Your task to perform on an android device: turn on priority inbox in the gmail app Image 0: 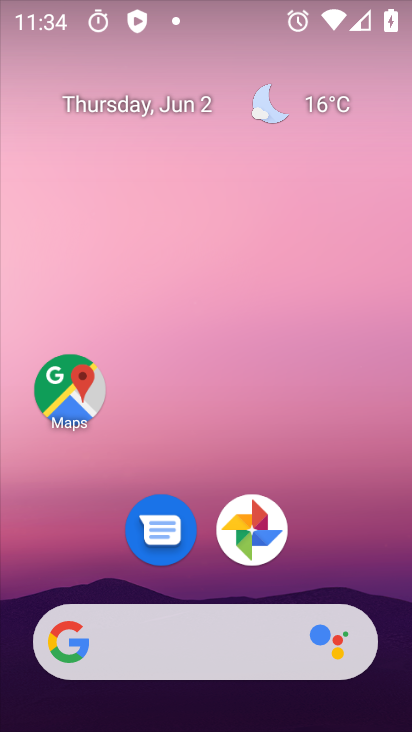
Step 0: drag from (223, 663) to (233, 164)
Your task to perform on an android device: turn on priority inbox in the gmail app Image 1: 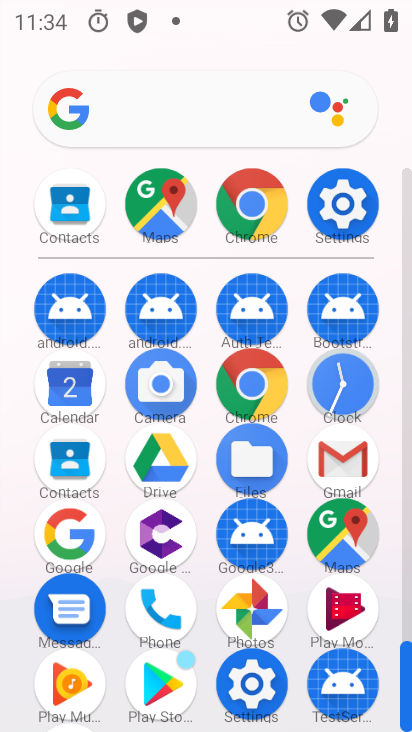
Step 1: click (340, 466)
Your task to perform on an android device: turn on priority inbox in the gmail app Image 2: 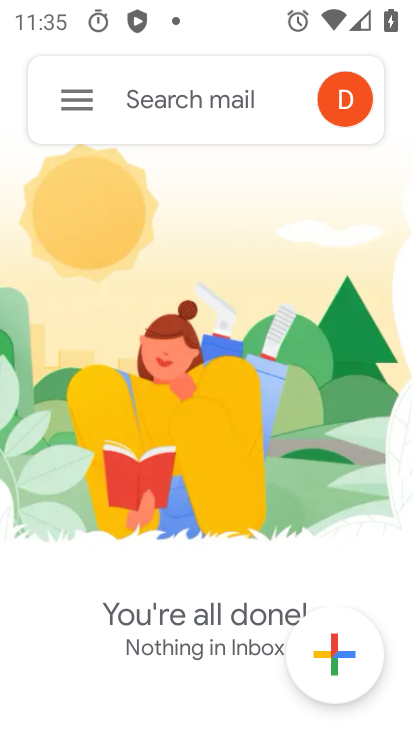
Step 2: click (75, 113)
Your task to perform on an android device: turn on priority inbox in the gmail app Image 3: 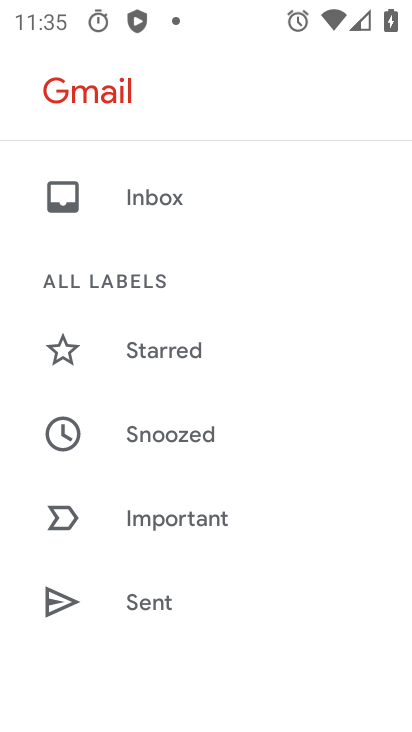
Step 3: drag from (238, 561) to (221, 90)
Your task to perform on an android device: turn on priority inbox in the gmail app Image 4: 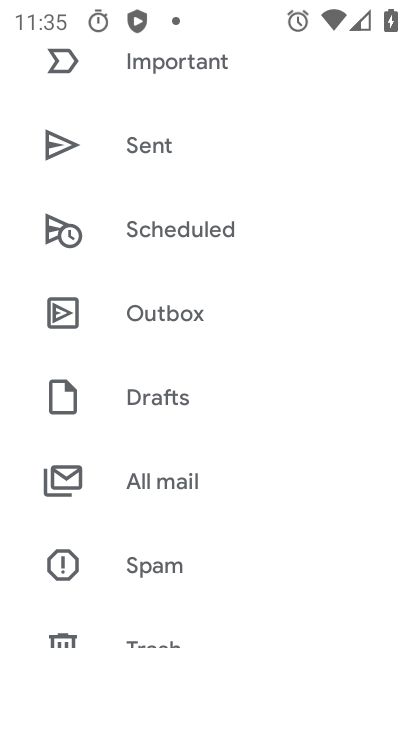
Step 4: drag from (259, 454) to (247, 209)
Your task to perform on an android device: turn on priority inbox in the gmail app Image 5: 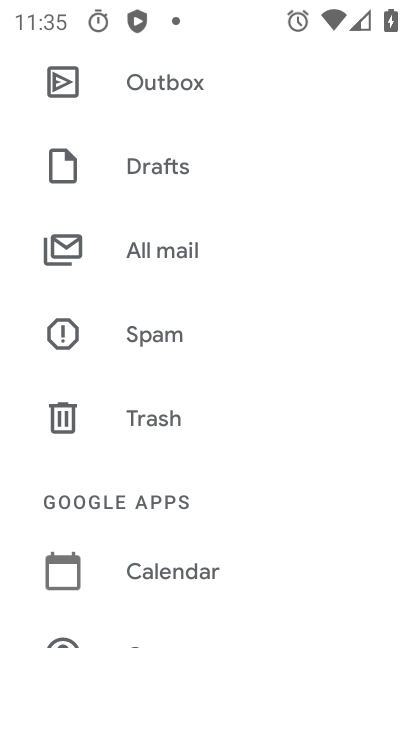
Step 5: drag from (227, 395) to (241, 120)
Your task to perform on an android device: turn on priority inbox in the gmail app Image 6: 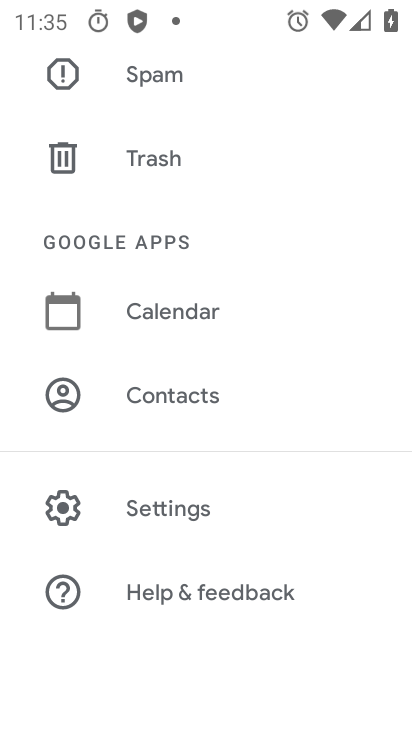
Step 6: click (185, 503)
Your task to perform on an android device: turn on priority inbox in the gmail app Image 7: 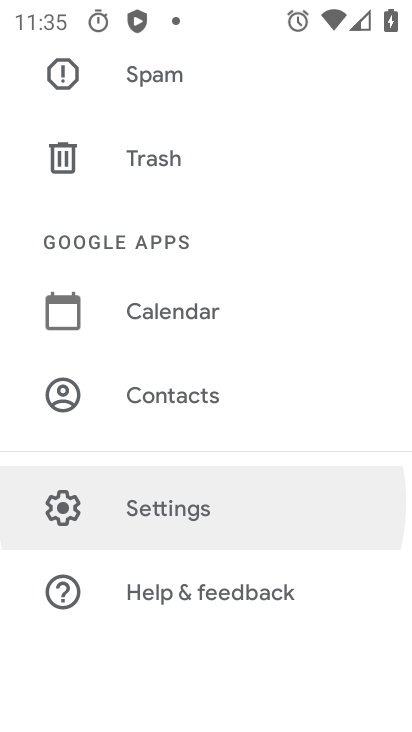
Step 7: click (185, 503)
Your task to perform on an android device: turn on priority inbox in the gmail app Image 8: 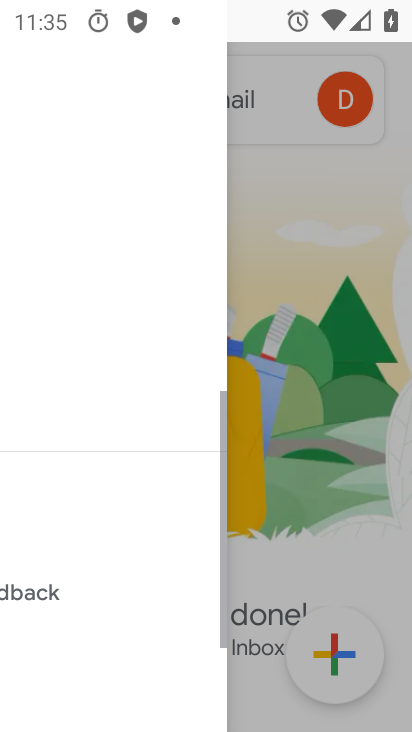
Step 8: click (185, 503)
Your task to perform on an android device: turn on priority inbox in the gmail app Image 9: 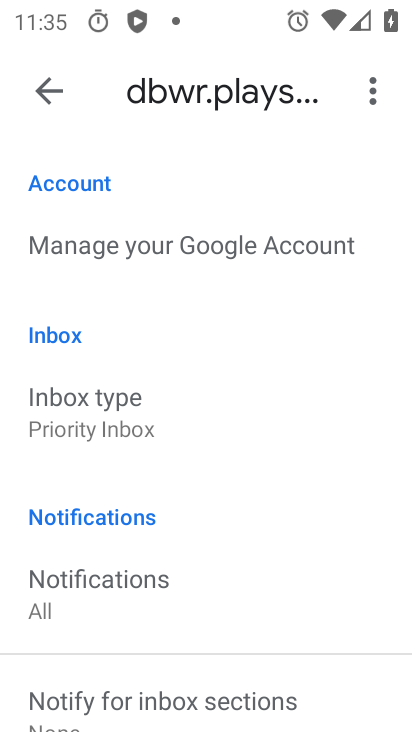
Step 9: drag from (189, 619) to (124, 272)
Your task to perform on an android device: turn on priority inbox in the gmail app Image 10: 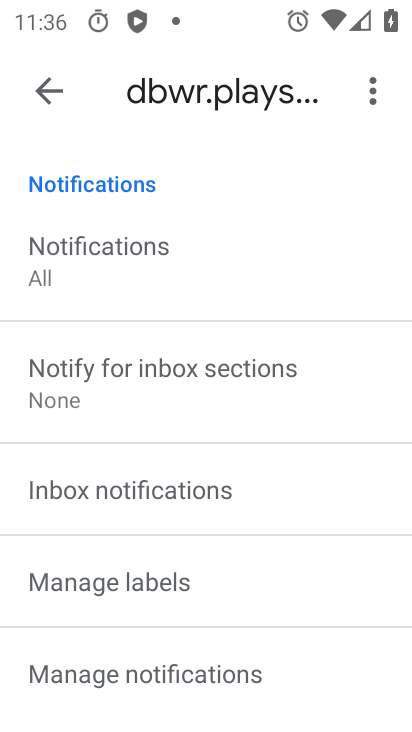
Step 10: drag from (201, 161) to (206, 84)
Your task to perform on an android device: turn on priority inbox in the gmail app Image 11: 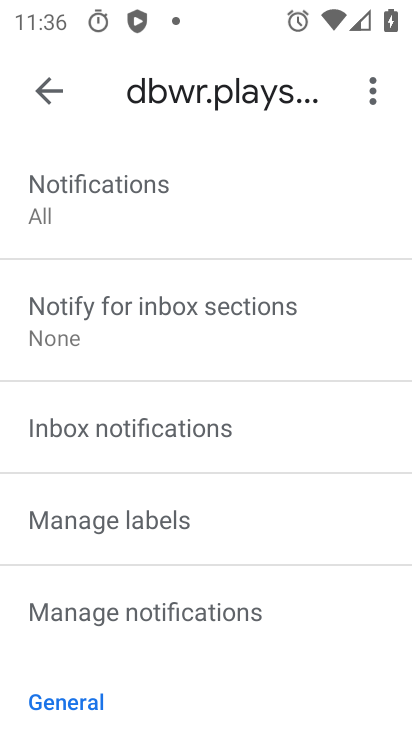
Step 11: drag from (160, 456) to (146, 162)
Your task to perform on an android device: turn on priority inbox in the gmail app Image 12: 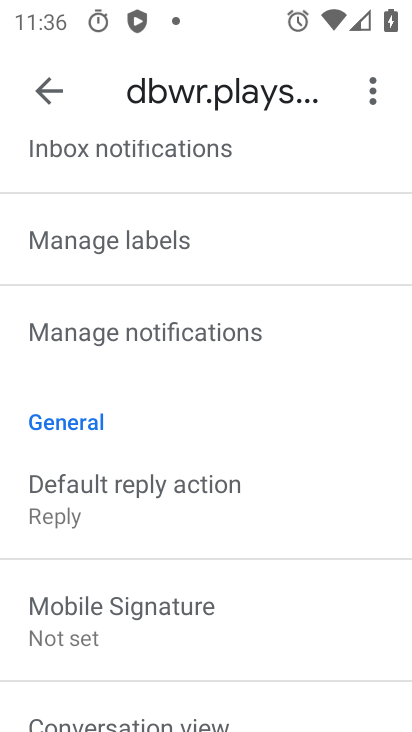
Step 12: drag from (195, 485) to (184, 117)
Your task to perform on an android device: turn on priority inbox in the gmail app Image 13: 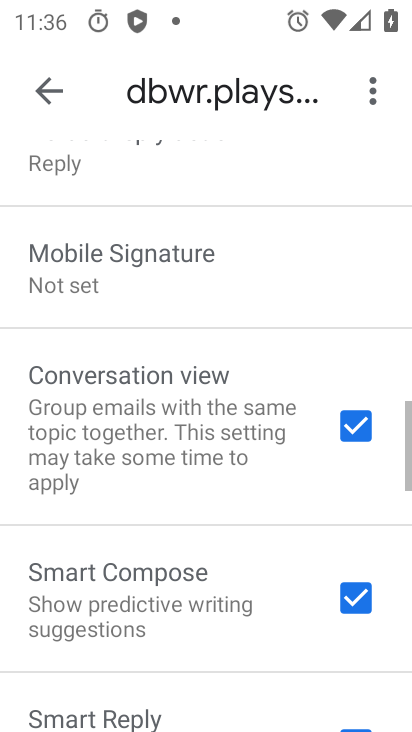
Step 13: drag from (183, 452) to (141, 290)
Your task to perform on an android device: turn on priority inbox in the gmail app Image 14: 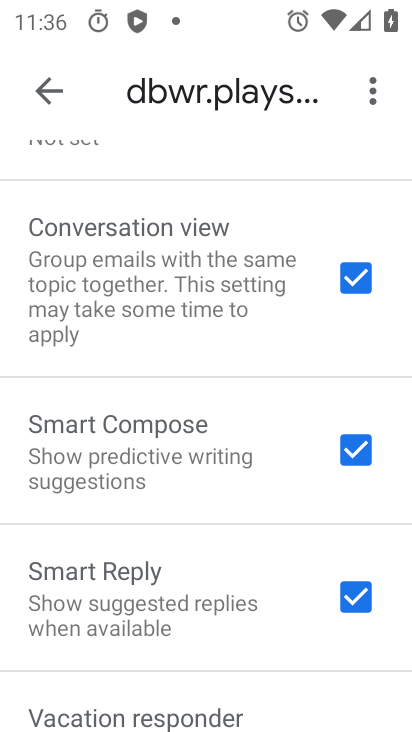
Step 14: drag from (161, 489) to (144, 217)
Your task to perform on an android device: turn on priority inbox in the gmail app Image 15: 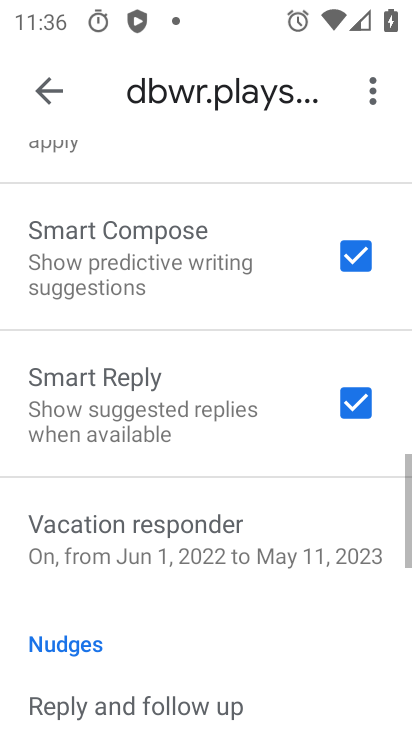
Step 15: drag from (170, 523) to (156, 222)
Your task to perform on an android device: turn on priority inbox in the gmail app Image 16: 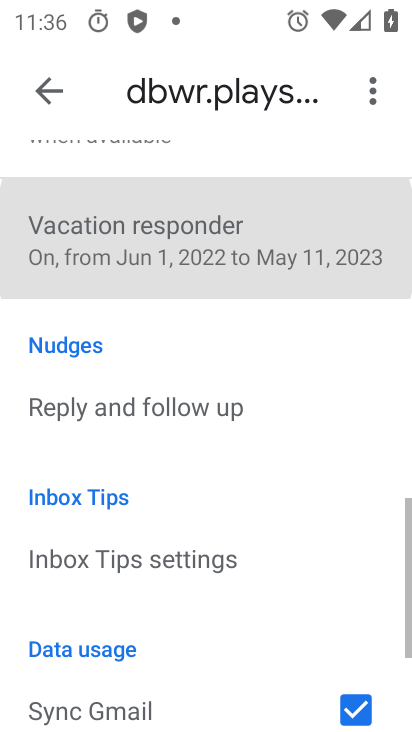
Step 16: drag from (191, 495) to (173, 109)
Your task to perform on an android device: turn on priority inbox in the gmail app Image 17: 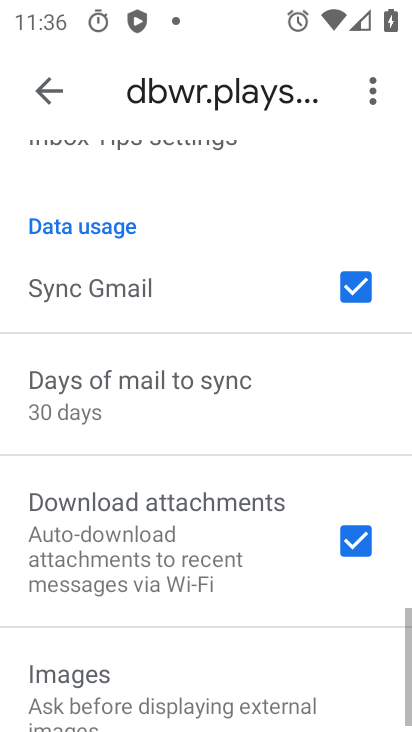
Step 17: drag from (215, 563) to (195, 157)
Your task to perform on an android device: turn on priority inbox in the gmail app Image 18: 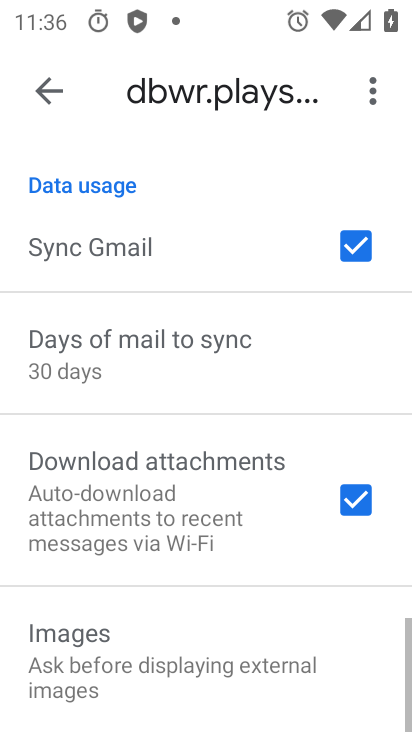
Step 18: drag from (186, 558) to (144, 208)
Your task to perform on an android device: turn on priority inbox in the gmail app Image 19: 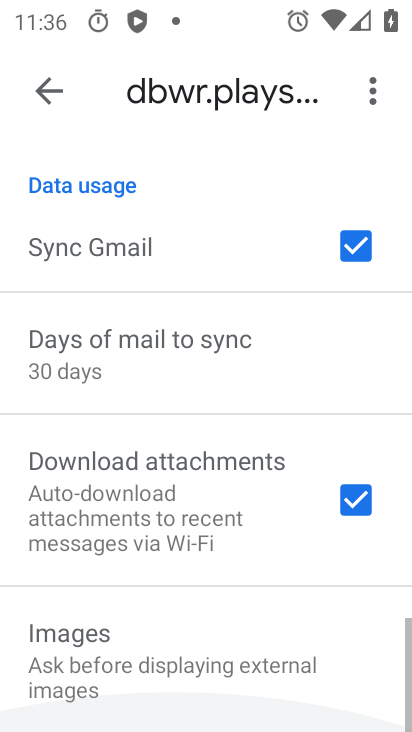
Step 19: drag from (137, 89) to (142, 23)
Your task to perform on an android device: turn on priority inbox in the gmail app Image 20: 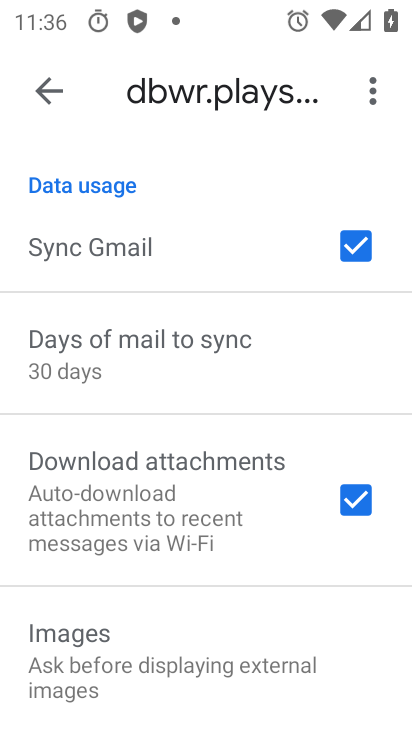
Step 20: drag from (122, 311) to (68, 146)
Your task to perform on an android device: turn on priority inbox in the gmail app Image 21: 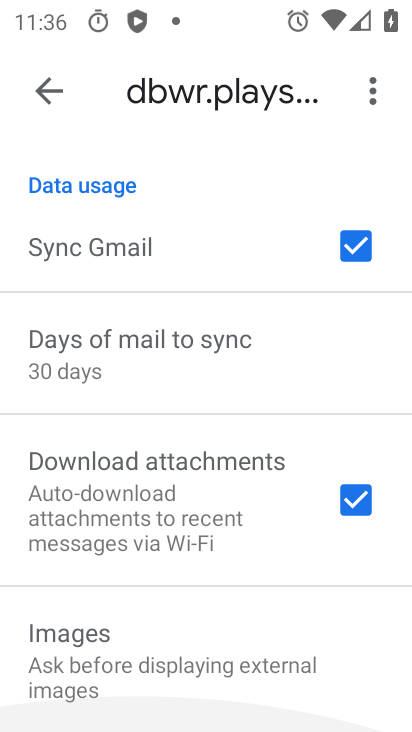
Step 21: drag from (171, 493) to (108, 44)
Your task to perform on an android device: turn on priority inbox in the gmail app Image 22: 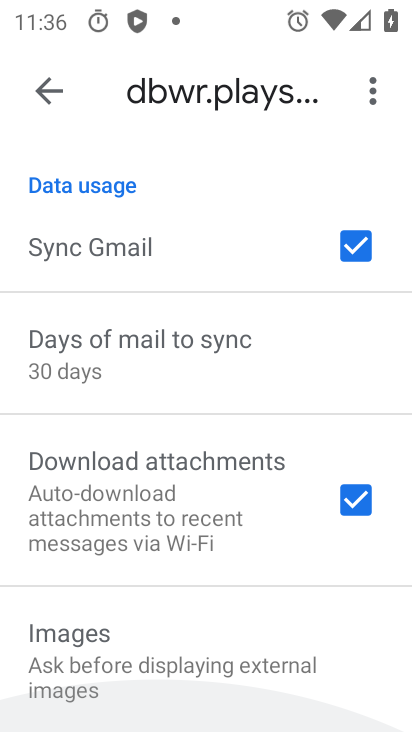
Step 22: drag from (115, 382) to (155, 43)
Your task to perform on an android device: turn on priority inbox in the gmail app Image 23: 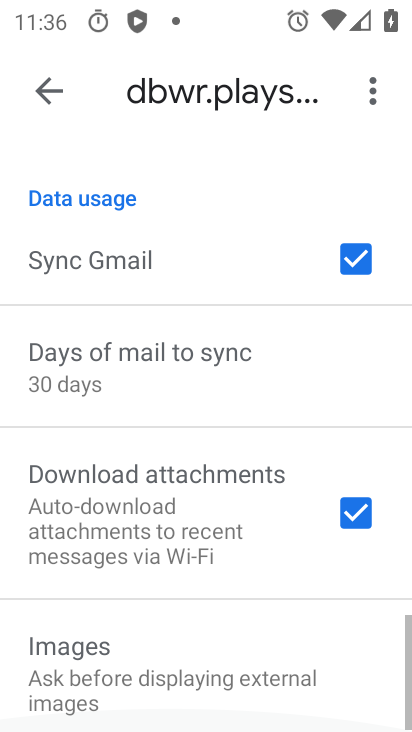
Step 23: drag from (233, 380) to (255, 23)
Your task to perform on an android device: turn on priority inbox in the gmail app Image 24: 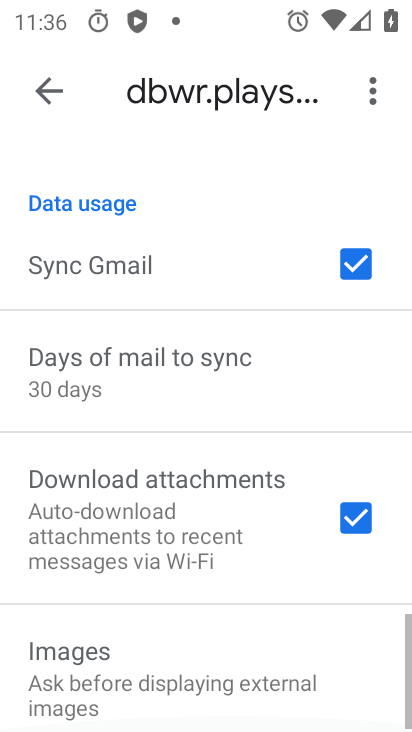
Step 24: drag from (269, 470) to (264, 132)
Your task to perform on an android device: turn on priority inbox in the gmail app Image 25: 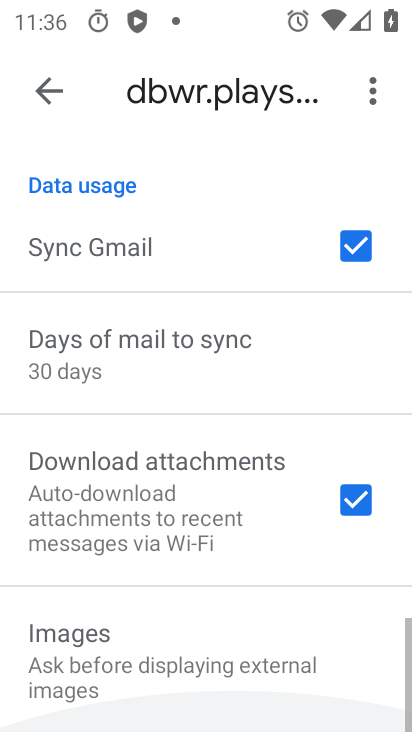
Step 25: drag from (179, 438) to (163, 54)
Your task to perform on an android device: turn on priority inbox in the gmail app Image 26: 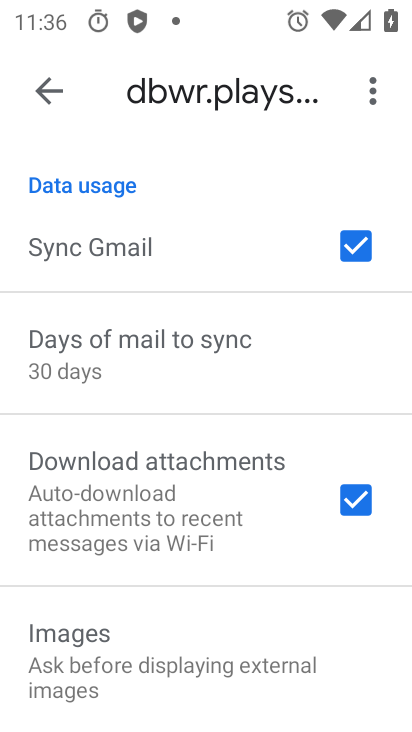
Step 26: drag from (187, 396) to (200, 5)
Your task to perform on an android device: turn on priority inbox in the gmail app Image 27: 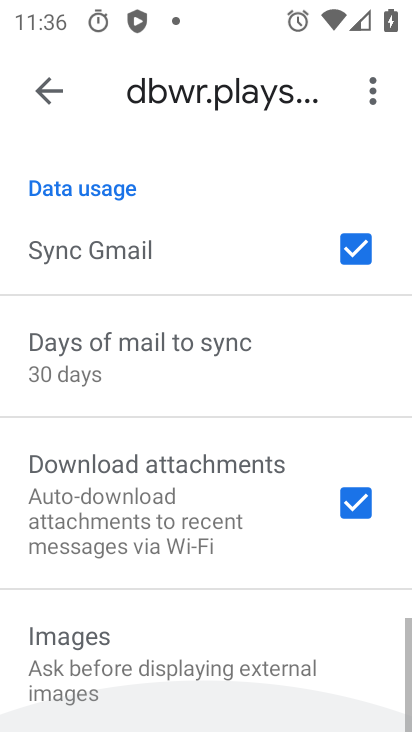
Step 27: drag from (200, 401) to (186, 152)
Your task to perform on an android device: turn on priority inbox in the gmail app Image 28: 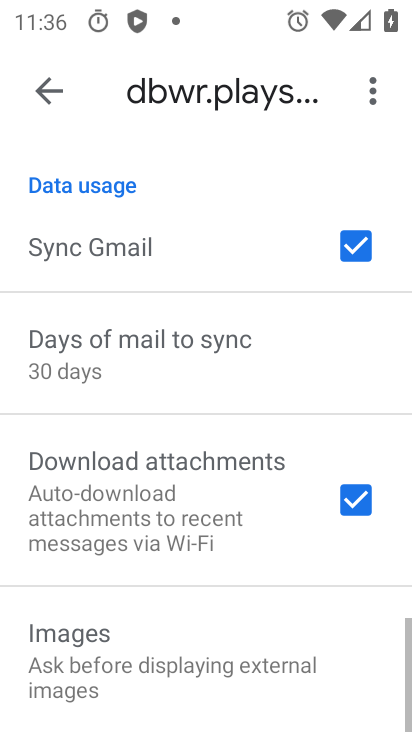
Step 28: drag from (190, 485) to (190, 302)
Your task to perform on an android device: turn on priority inbox in the gmail app Image 29: 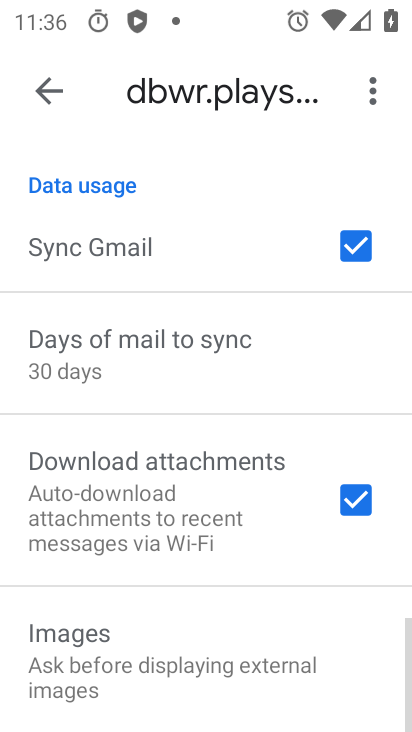
Step 29: click (36, 87)
Your task to perform on an android device: turn on priority inbox in the gmail app Image 30: 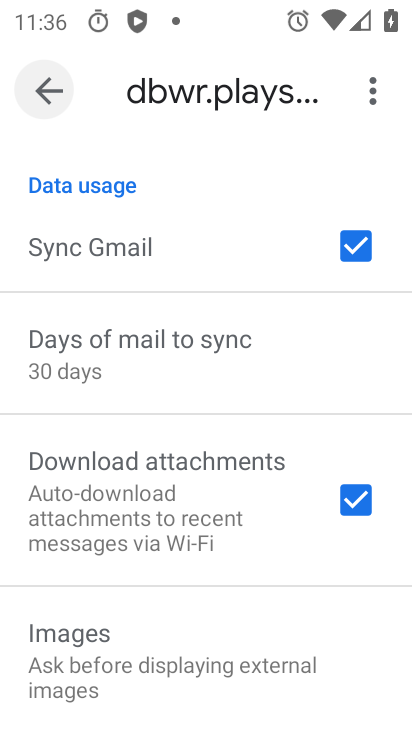
Step 30: click (36, 87)
Your task to perform on an android device: turn on priority inbox in the gmail app Image 31: 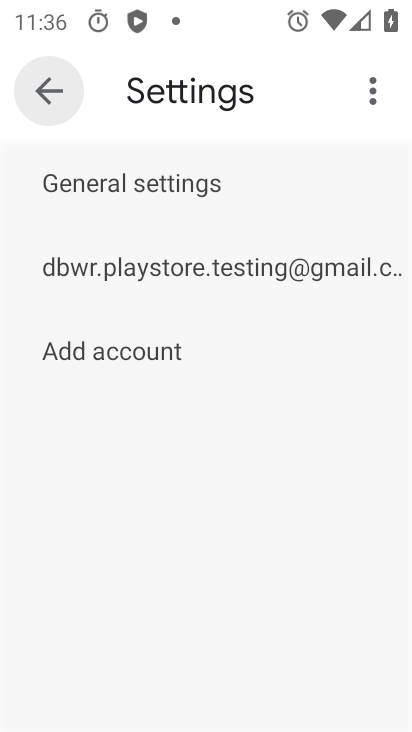
Step 31: click (36, 87)
Your task to perform on an android device: turn on priority inbox in the gmail app Image 32: 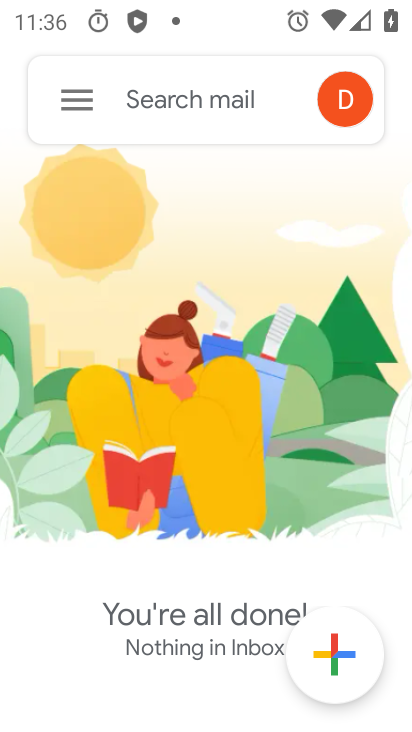
Step 32: click (86, 101)
Your task to perform on an android device: turn on priority inbox in the gmail app Image 33: 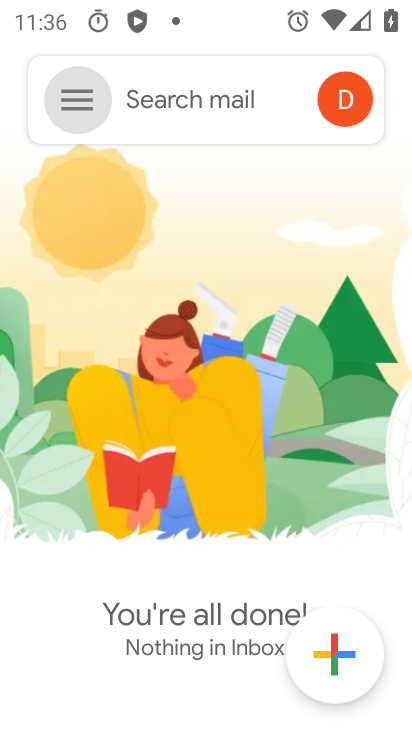
Step 33: click (86, 101)
Your task to perform on an android device: turn on priority inbox in the gmail app Image 34: 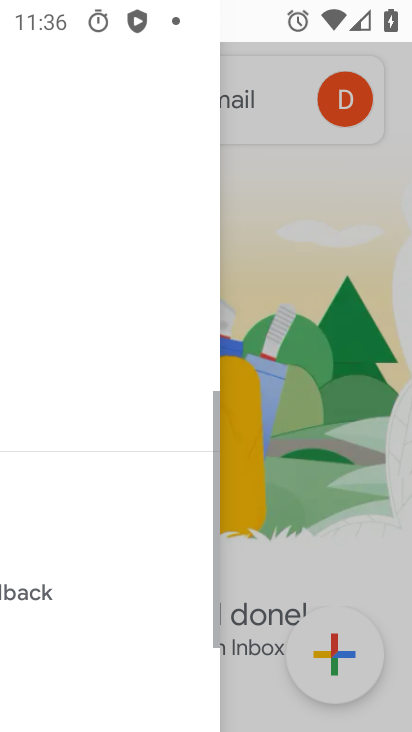
Step 34: click (83, 101)
Your task to perform on an android device: turn on priority inbox in the gmail app Image 35: 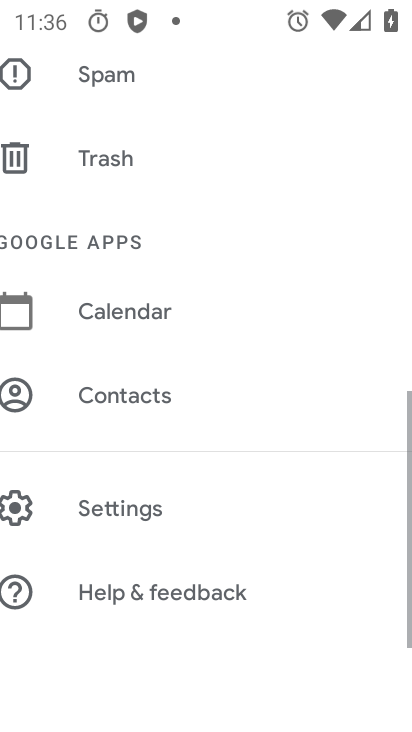
Step 35: click (82, 103)
Your task to perform on an android device: turn on priority inbox in the gmail app Image 36: 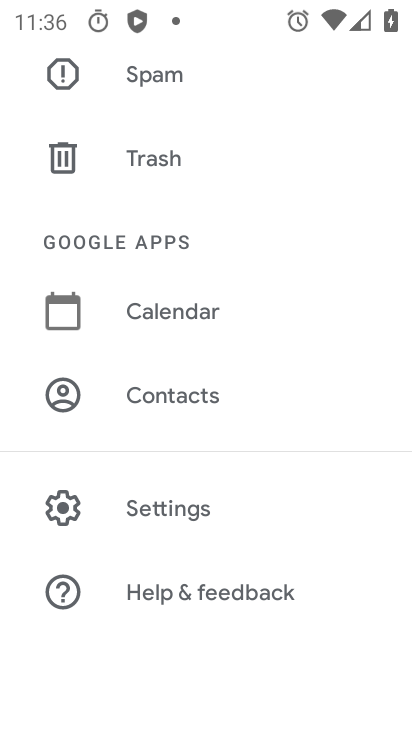
Step 36: click (160, 510)
Your task to perform on an android device: turn on priority inbox in the gmail app Image 37: 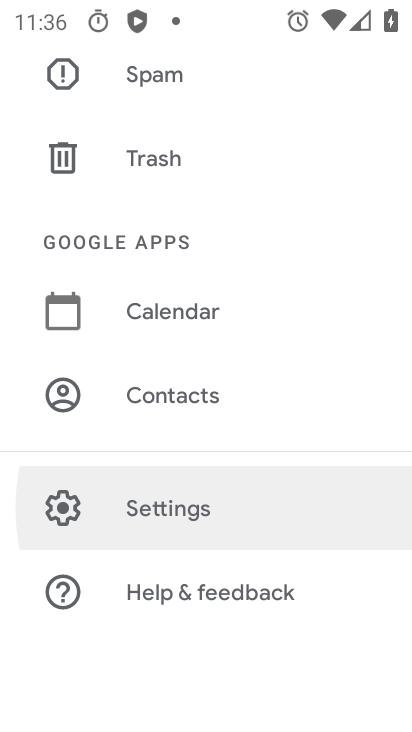
Step 37: click (159, 510)
Your task to perform on an android device: turn on priority inbox in the gmail app Image 38: 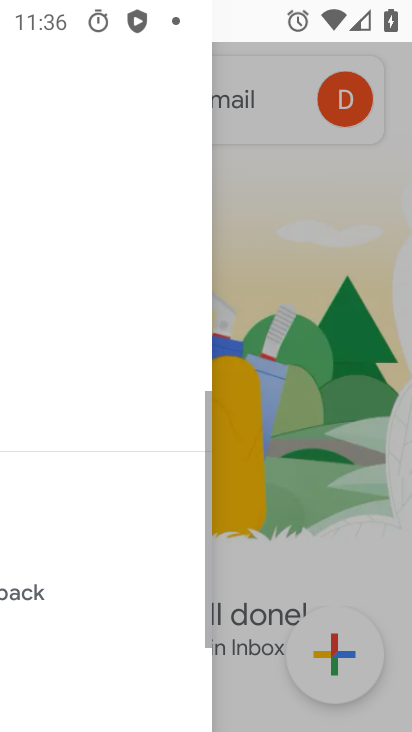
Step 38: click (155, 511)
Your task to perform on an android device: turn on priority inbox in the gmail app Image 39: 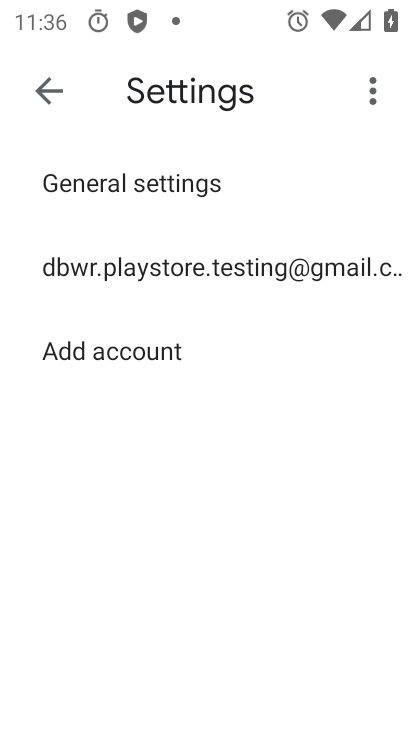
Step 39: click (161, 281)
Your task to perform on an android device: turn on priority inbox in the gmail app Image 40: 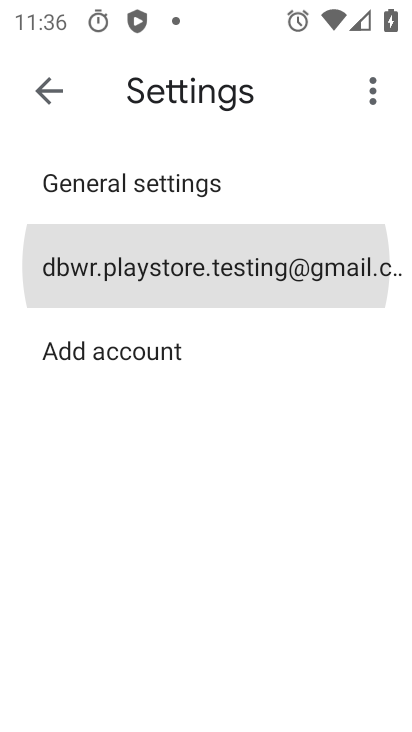
Step 40: click (161, 281)
Your task to perform on an android device: turn on priority inbox in the gmail app Image 41: 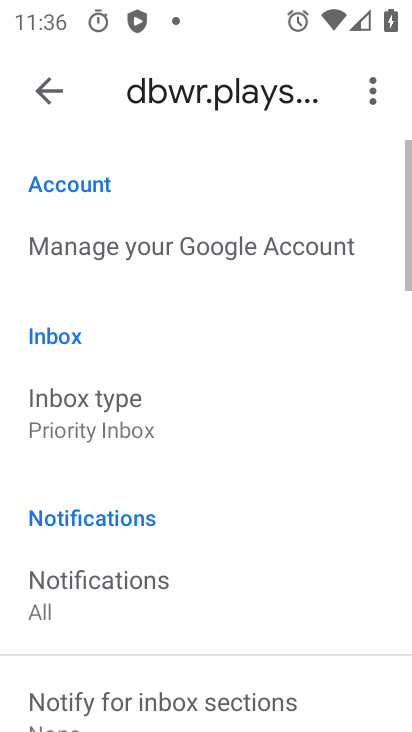
Step 41: click (160, 280)
Your task to perform on an android device: turn on priority inbox in the gmail app Image 42: 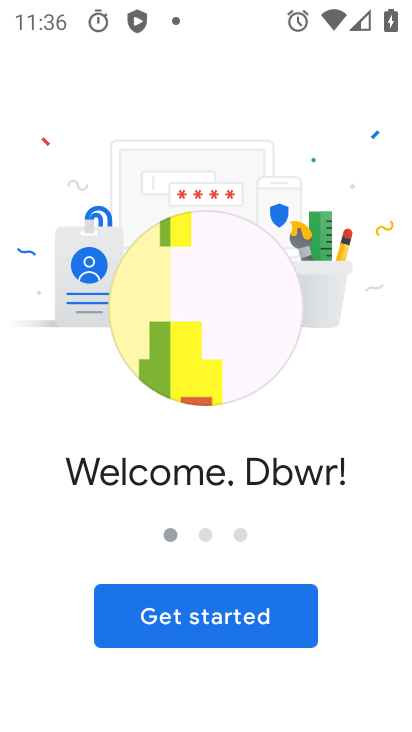
Step 42: click (225, 613)
Your task to perform on an android device: turn on priority inbox in the gmail app Image 43: 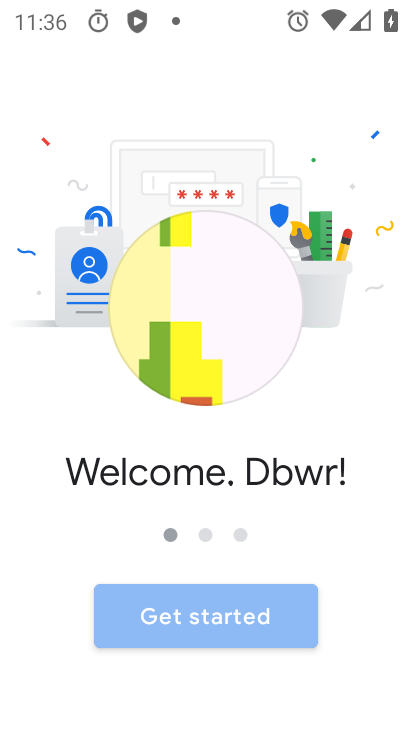
Step 43: click (225, 613)
Your task to perform on an android device: turn on priority inbox in the gmail app Image 44: 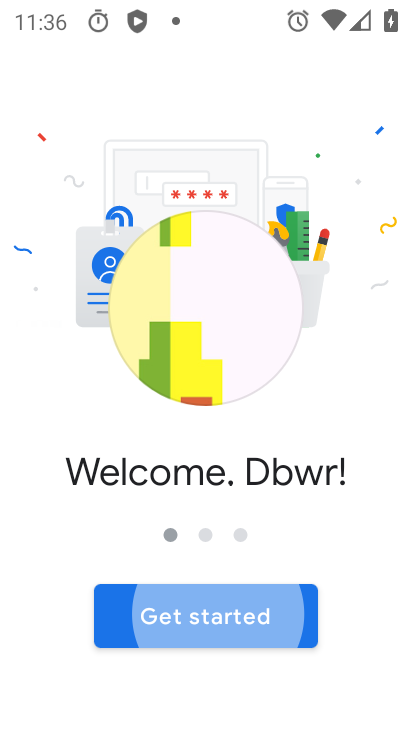
Step 44: click (226, 614)
Your task to perform on an android device: turn on priority inbox in the gmail app Image 45: 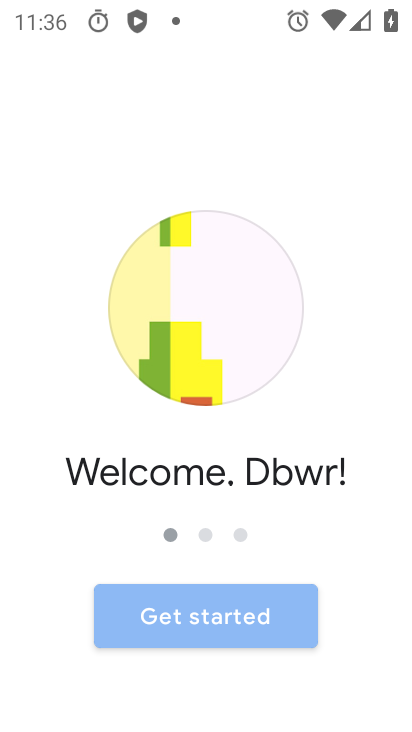
Step 45: click (226, 614)
Your task to perform on an android device: turn on priority inbox in the gmail app Image 46: 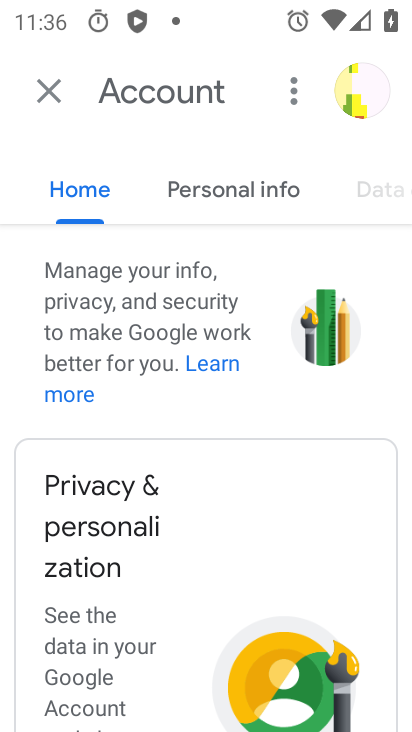
Step 46: click (36, 97)
Your task to perform on an android device: turn on priority inbox in the gmail app Image 47: 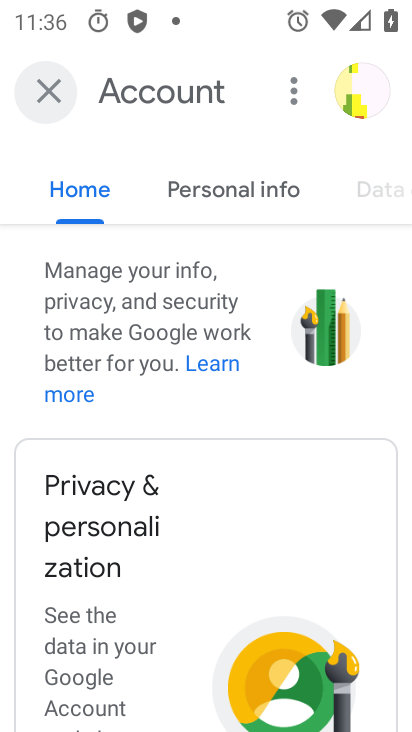
Step 47: click (48, 91)
Your task to perform on an android device: turn on priority inbox in the gmail app Image 48: 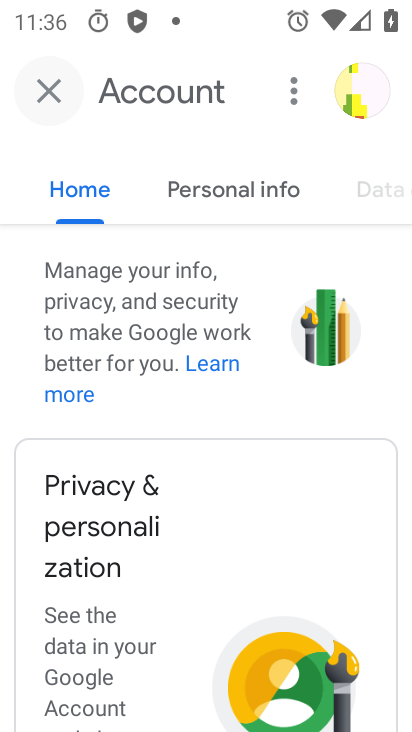
Step 48: click (48, 91)
Your task to perform on an android device: turn on priority inbox in the gmail app Image 49: 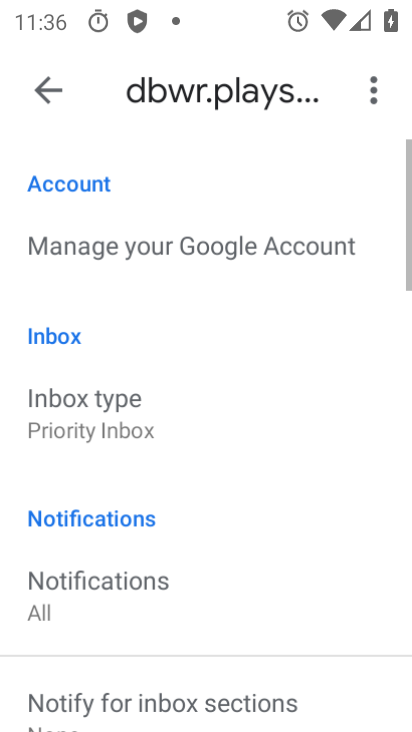
Step 49: click (48, 91)
Your task to perform on an android device: turn on priority inbox in the gmail app Image 50: 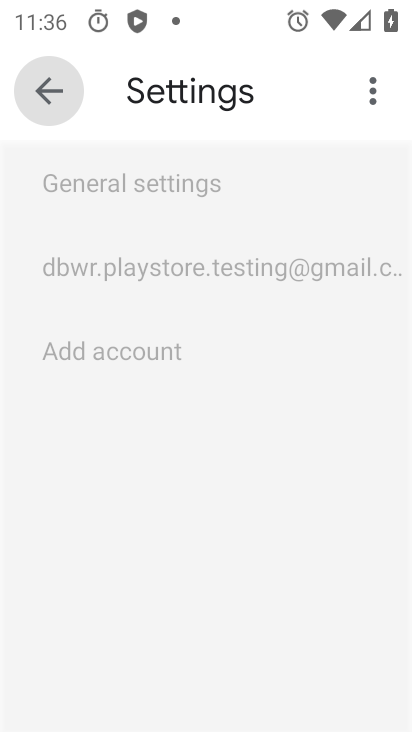
Step 50: click (49, 89)
Your task to perform on an android device: turn on priority inbox in the gmail app Image 51: 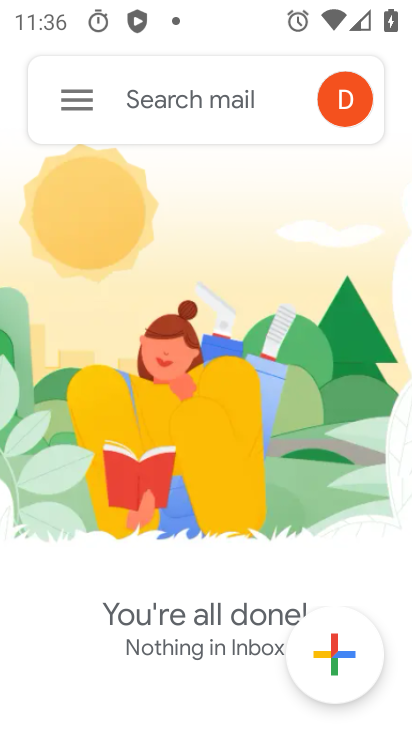
Step 51: click (74, 92)
Your task to perform on an android device: turn on priority inbox in the gmail app Image 52: 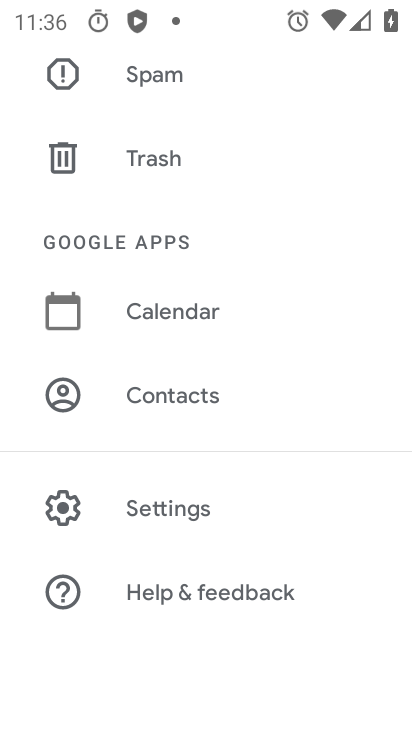
Step 52: click (176, 498)
Your task to perform on an android device: turn on priority inbox in the gmail app Image 53: 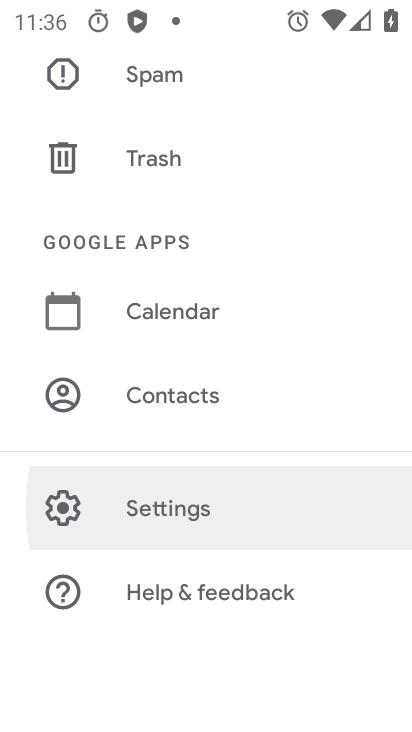
Step 53: click (176, 498)
Your task to perform on an android device: turn on priority inbox in the gmail app Image 54: 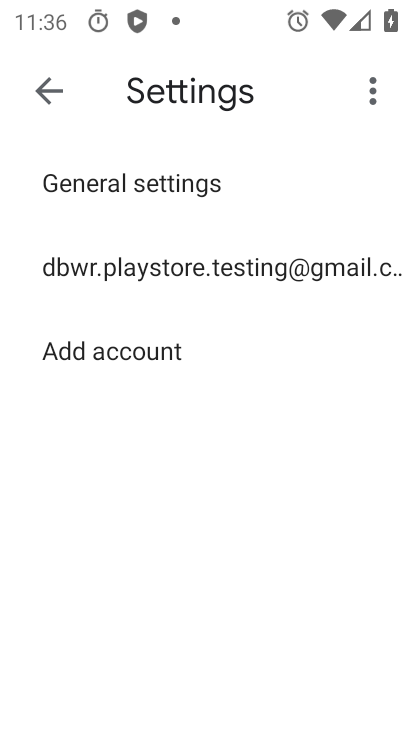
Step 54: click (221, 280)
Your task to perform on an android device: turn on priority inbox in the gmail app Image 55: 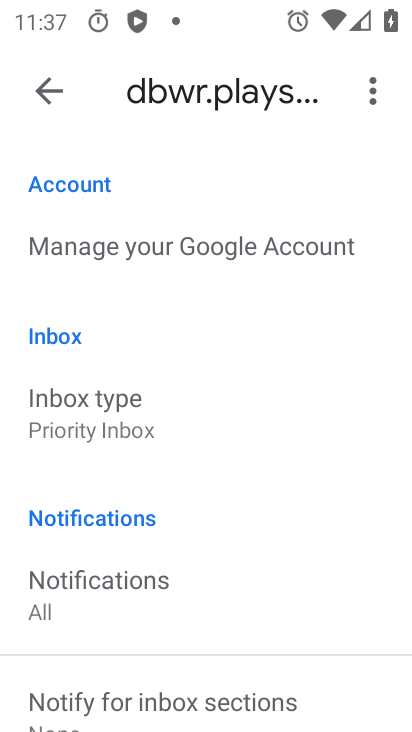
Step 55: task complete